Your task to perform on an android device: toggle translation in the chrome app Image 0: 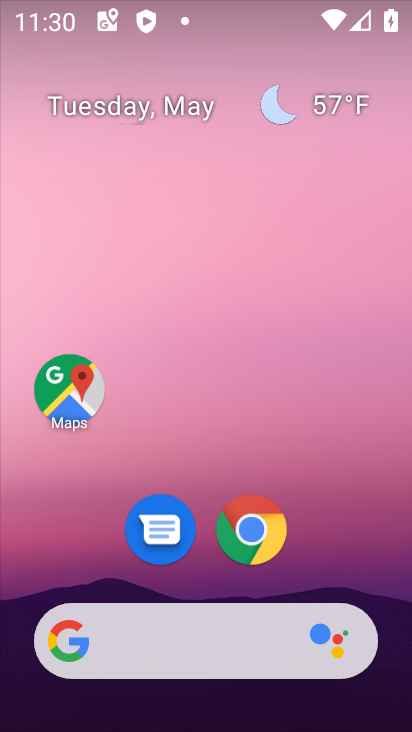
Step 0: click (244, 540)
Your task to perform on an android device: toggle translation in the chrome app Image 1: 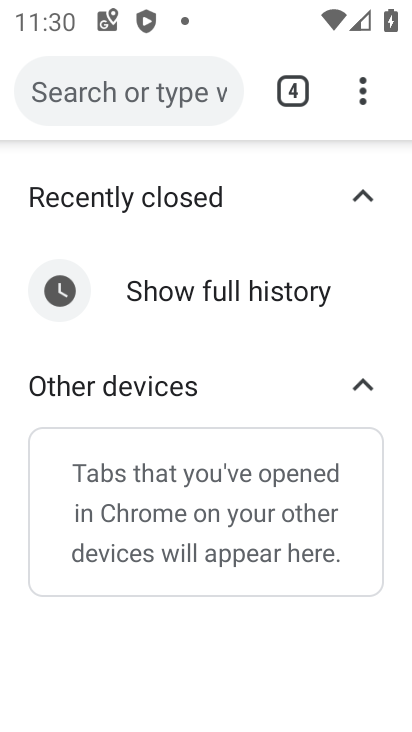
Step 1: click (374, 82)
Your task to perform on an android device: toggle translation in the chrome app Image 2: 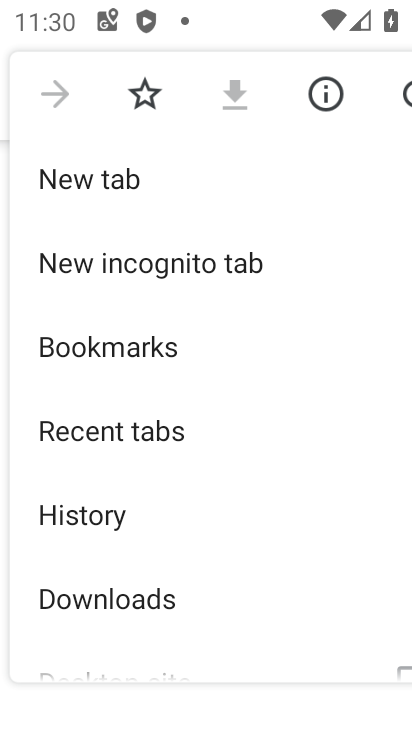
Step 2: drag from (97, 638) to (107, 280)
Your task to perform on an android device: toggle translation in the chrome app Image 3: 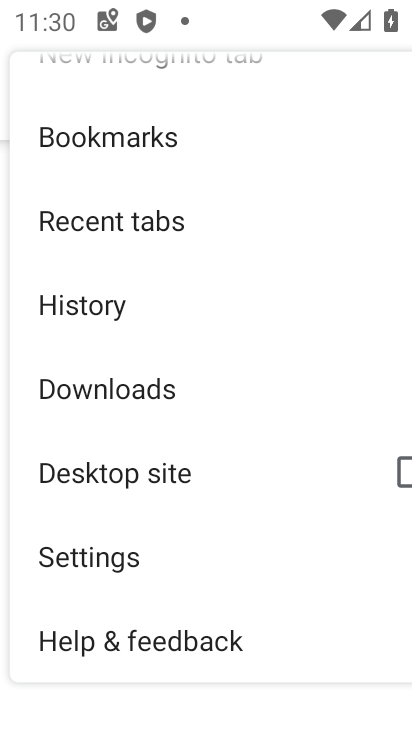
Step 3: click (138, 556)
Your task to perform on an android device: toggle translation in the chrome app Image 4: 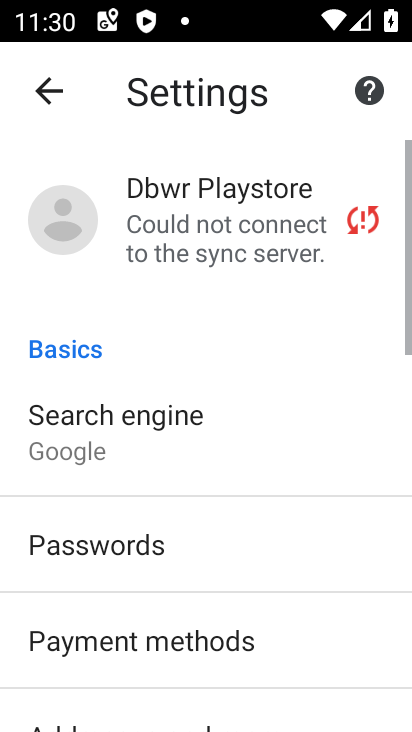
Step 4: drag from (138, 556) to (203, 96)
Your task to perform on an android device: toggle translation in the chrome app Image 5: 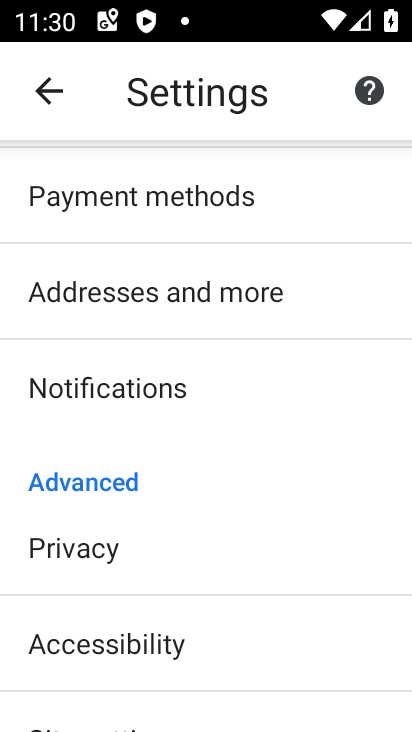
Step 5: drag from (108, 560) to (186, 33)
Your task to perform on an android device: toggle translation in the chrome app Image 6: 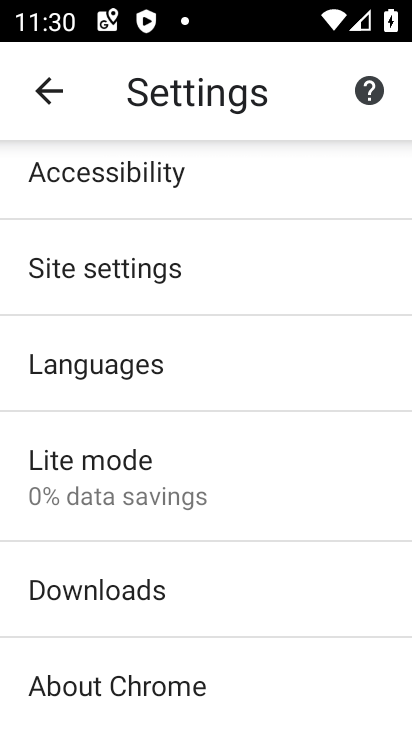
Step 6: click (111, 386)
Your task to perform on an android device: toggle translation in the chrome app Image 7: 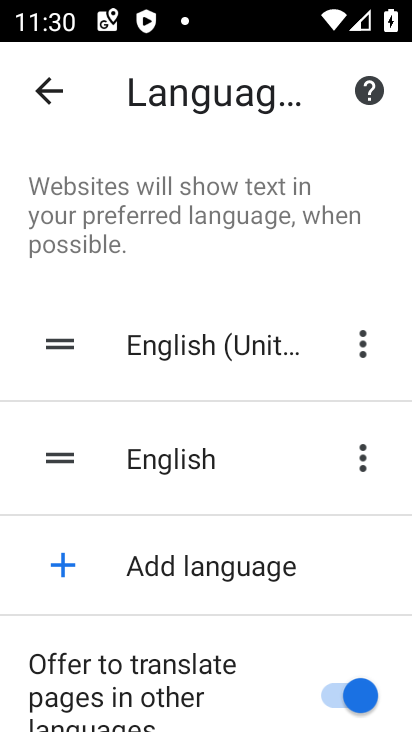
Step 7: click (340, 697)
Your task to perform on an android device: toggle translation in the chrome app Image 8: 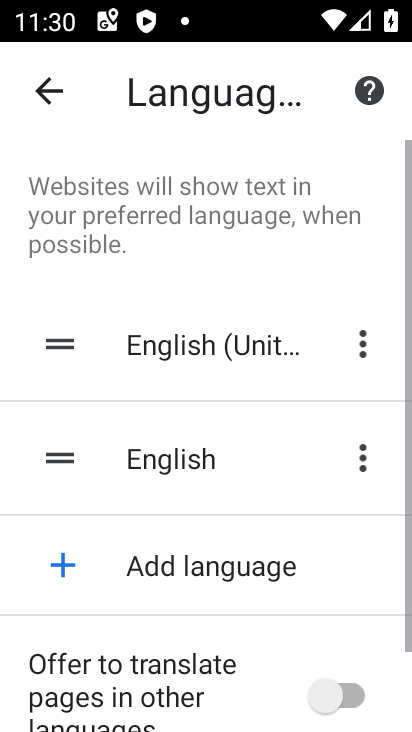
Step 8: click (340, 697)
Your task to perform on an android device: toggle translation in the chrome app Image 9: 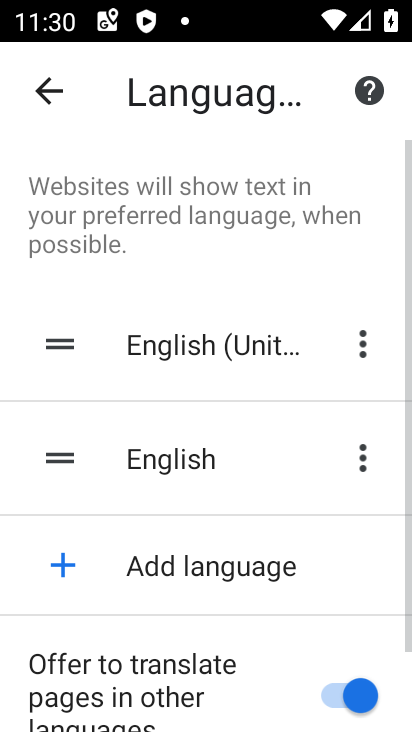
Step 9: task complete